Your task to perform on an android device: open chrome and create a bookmark for the current page Image 0: 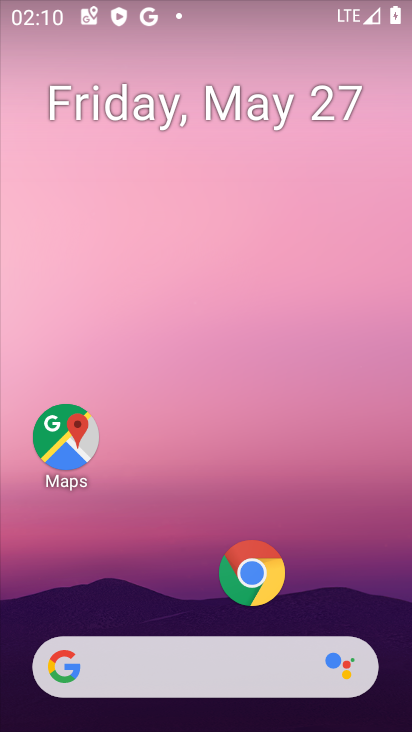
Step 0: click (265, 574)
Your task to perform on an android device: open chrome and create a bookmark for the current page Image 1: 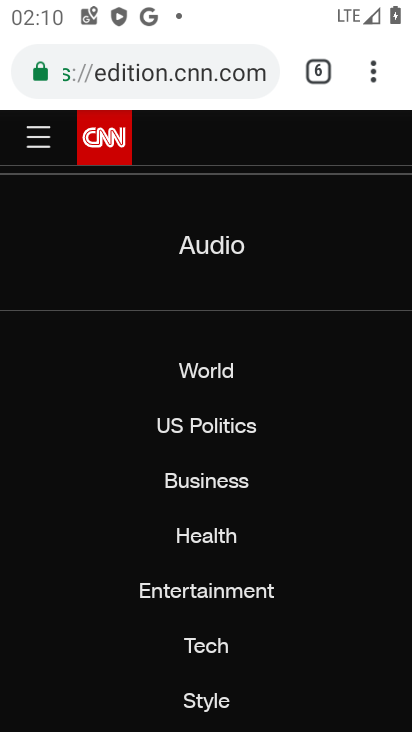
Step 1: task complete